Your task to perform on an android device: What's the weather going to be this weekend? Image 0: 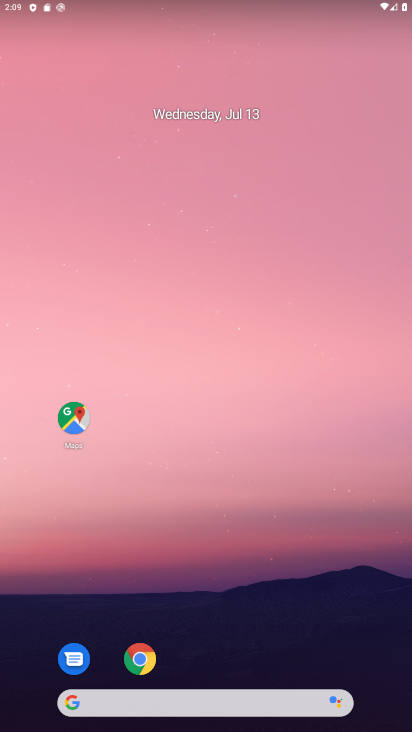
Step 0: drag from (237, 670) to (8, 182)
Your task to perform on an android device: What's the weather going to be this weekend? Image 1: 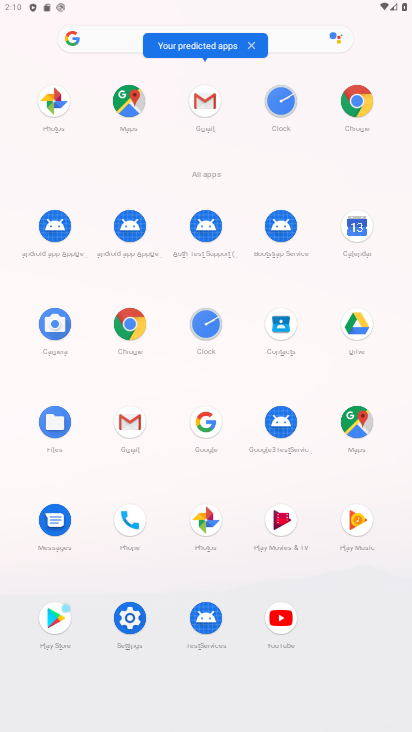
Step 1: press home button
Your task to perform on an android device: What's the weather going to be this weekend? Image 2: 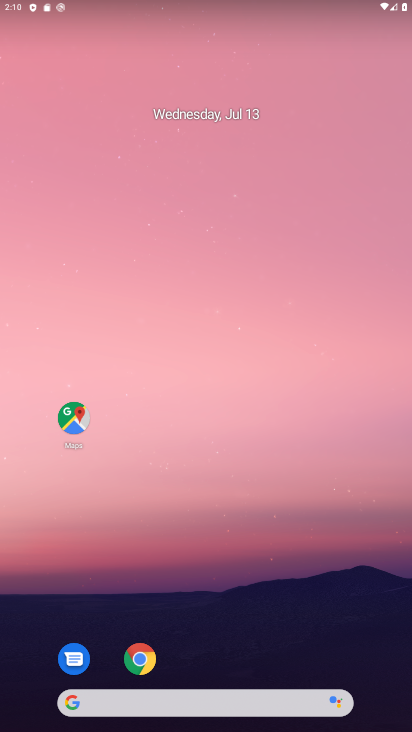
Step 2: click (181, 695)
Your task to perform on an android device: What's the weather going to be this weekend? Image 3: 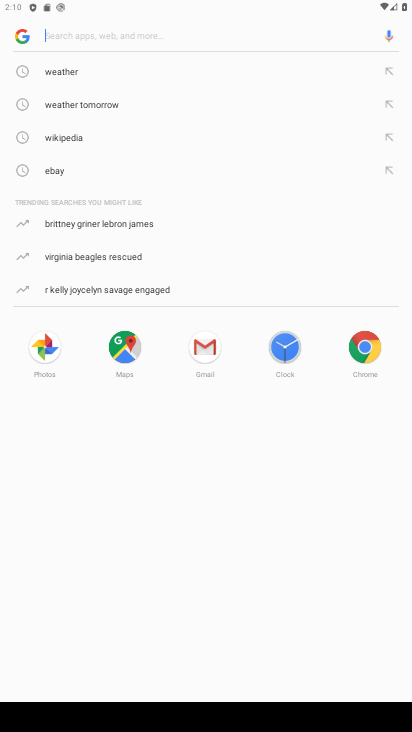
Step 3: click (91, 69)
Your task to perform on an android device: What's the weather going to be this weekend? Image 4: 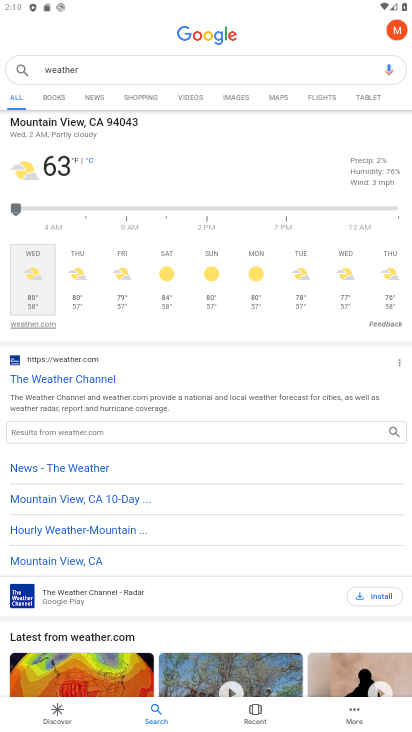
Step 4: click (164, 274)
Your task to perform on an android device: What's the weather going to be this weekend? Image 5: 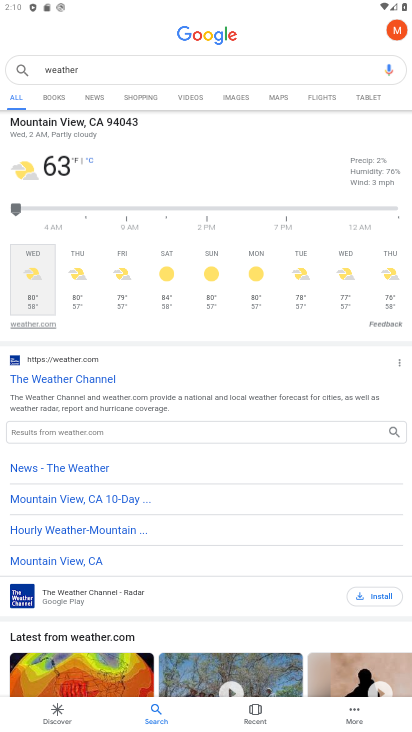
Step 5: click (217, 279)
Your task to perform on an android device: What's the weather going to be this weekend? Image 6: 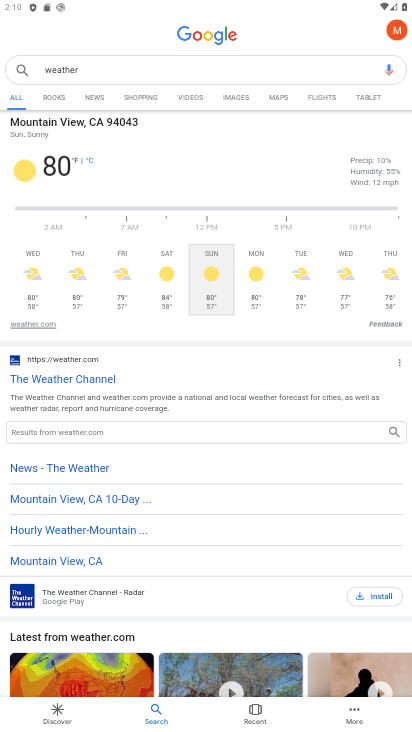
Step 6: task complete